Your task to perform on an android device: Go to ESPN.com Image 0: 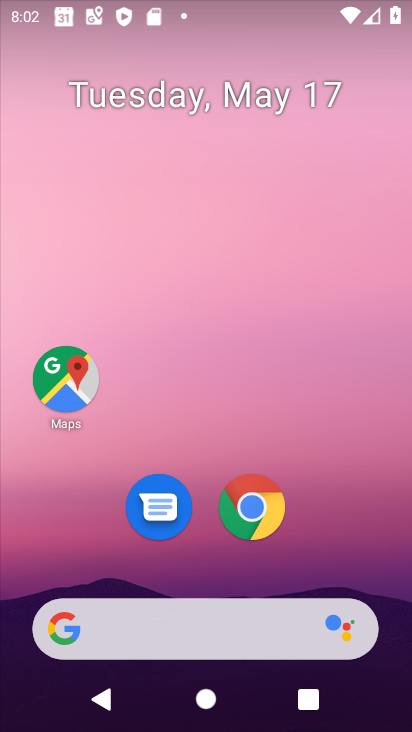
Step 0: click (254, 510)
Your task to perform on an android device: Go to ESPN.com Image 1: 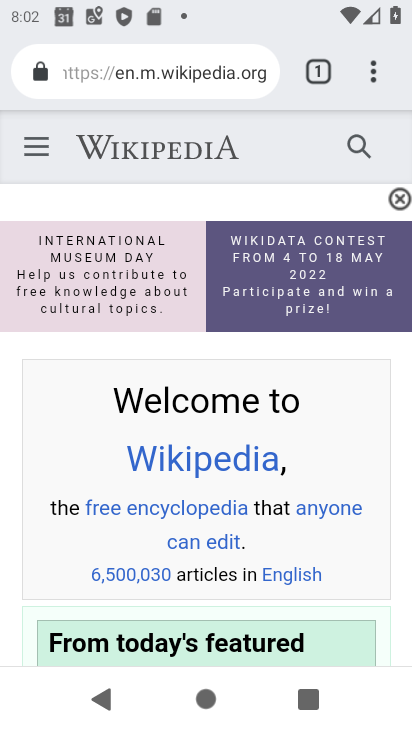
Step 1: click (107, 75)
Your task to perform on an android device: Go to ESPN.com Image 2: 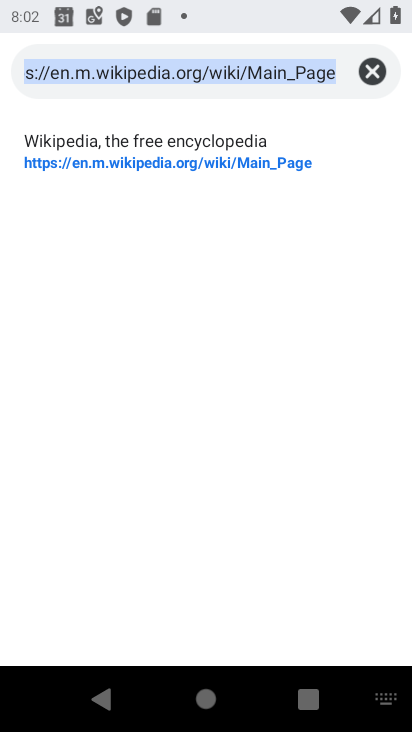
Step 2: click (376, 67)
Your task to perform on an android device: Go to ESPN.com Image 3: 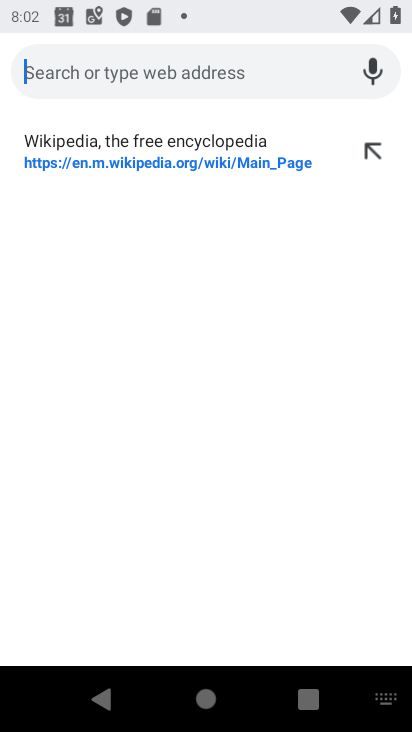
Step 3: type "espn.com"
Your task to perform on an android device: Go to ESPN.com Image 4: 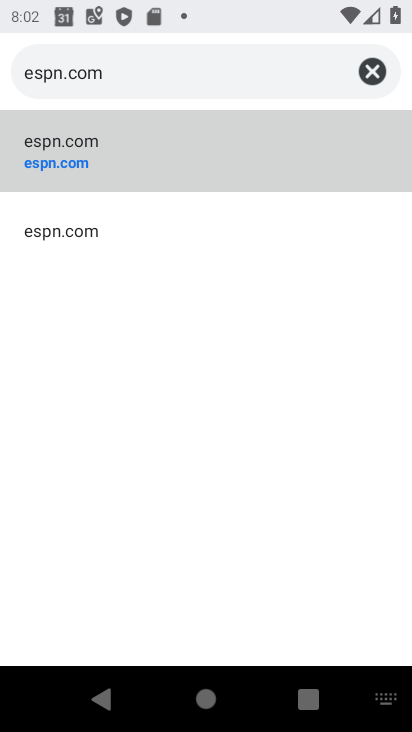
Step 4: click (69, 158)
Your task to perform on an android device: Go to ESPN.com Image 5: 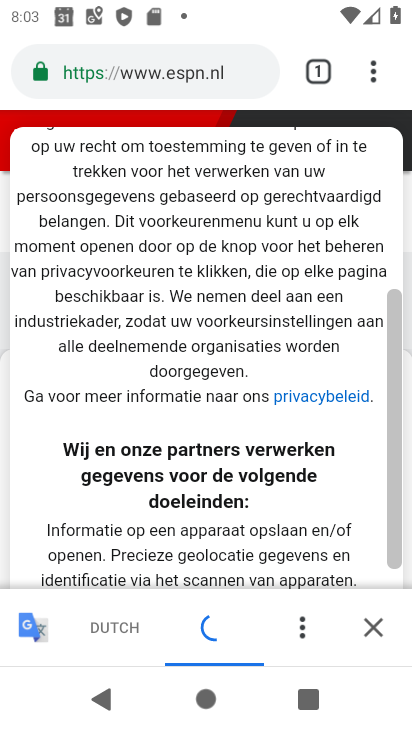
Step 5: task complete